Your task to perform on an android device: choose inbox layout in the gmail app Image 0: 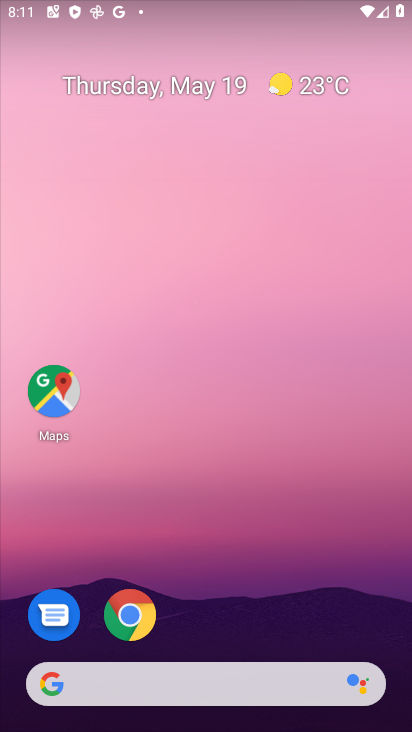
Step 0: drag from (351, 630) to (305, 47)
Your task to perform on an android device: choose inbox layout in the gmail app Image 1: 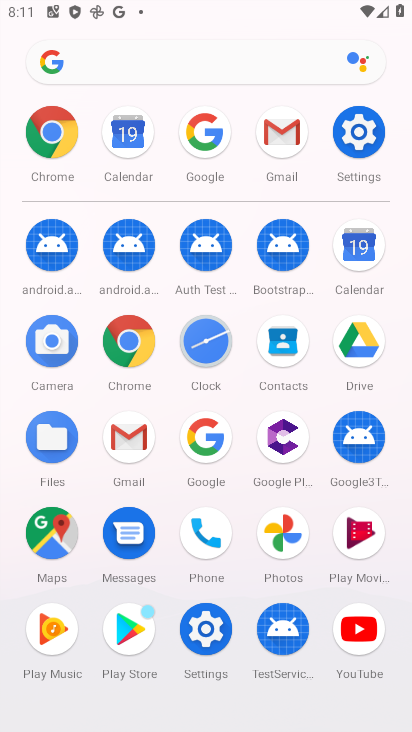
Step 1: click (285, 154)
Your task to perform on an android device: choose inbox layout in the gmail app Image 2: 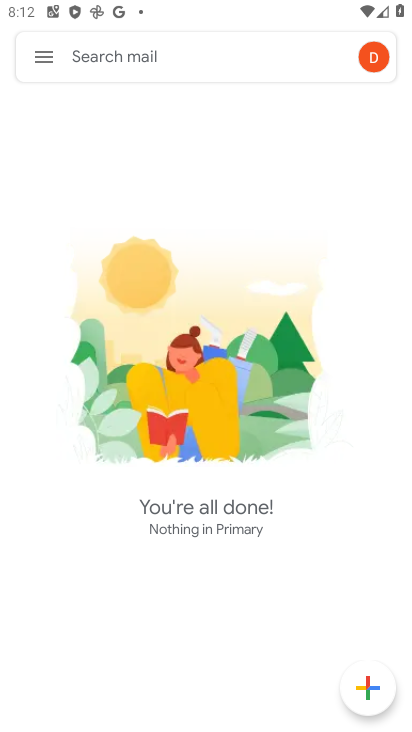
Step 2: task complete